Your task to perform on an android device: open sync settings in chrome Image 0: 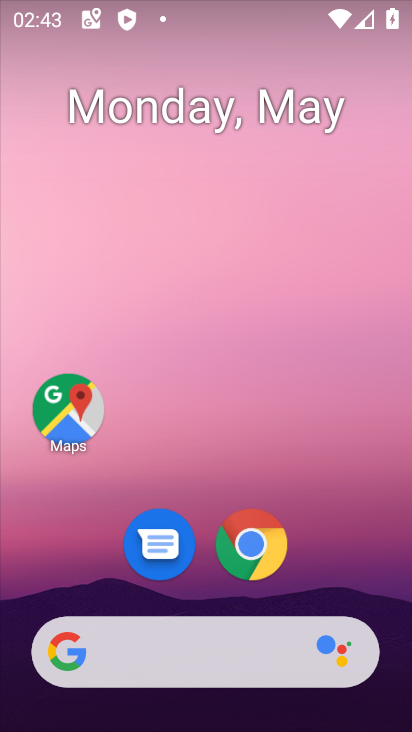
Step 0: drag from (389, 572) to (391, 284)
Your task to perform on an android device: open sync settings in chrome Image 1: 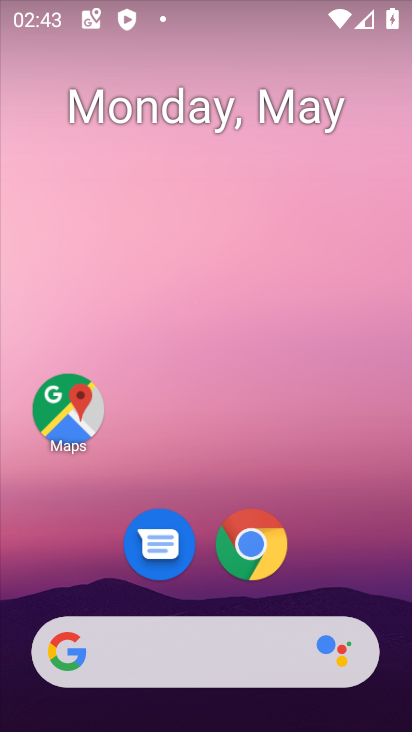
Step 1: drag from (386, 558) to (387, 214)
Your task to perform on an android device: open sync settings in chrome Image 2: 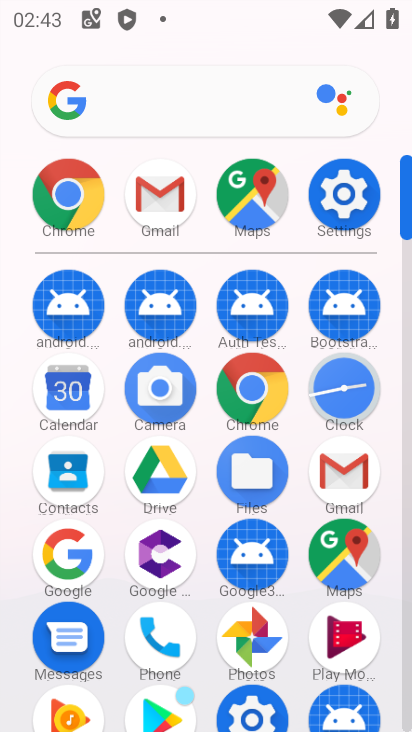
Step 2: click (259, 392)
Your task to perform on an android device: open sync settings in chrome Image 3: 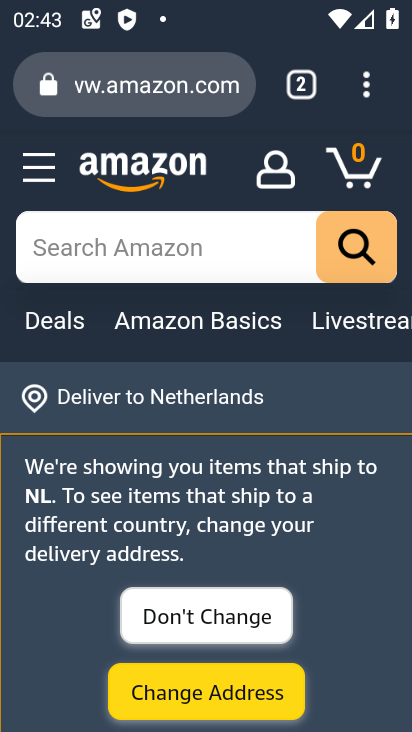
Step 3: click (363, 100)
Your task to perform on an android device: open sync settings in chrome Image 4: 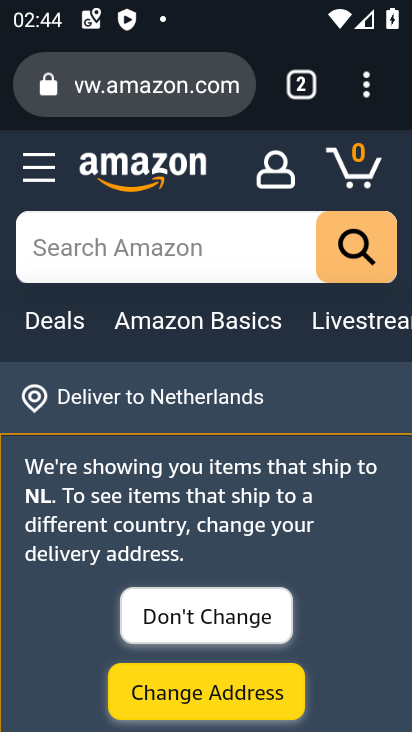
Step 4: click (366, 92)
Your task to perform on an android device: open sync settings in chrome Image 5: 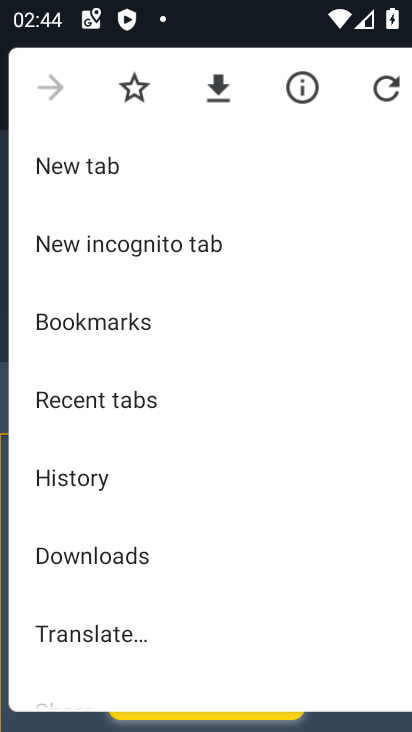
Step 5: drag from (328, 433) to (318, 343)
Your task to perform on an android device: open sync settings in chrome Image 6: 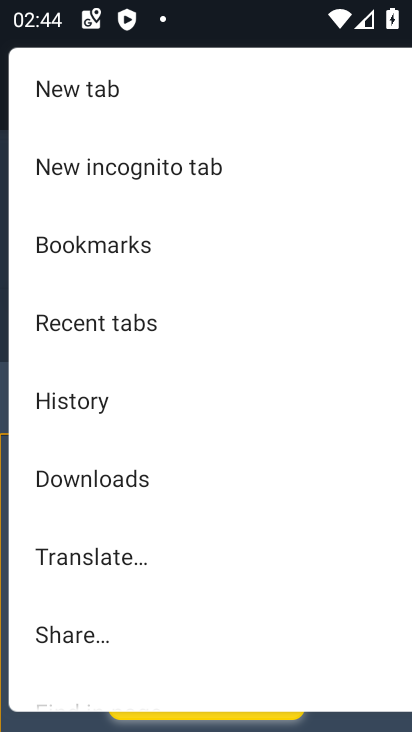
Step 6: drag from (305, 553) to (299, 400)
Your task to perform on an android device: open sync settings in chrome Image 7: 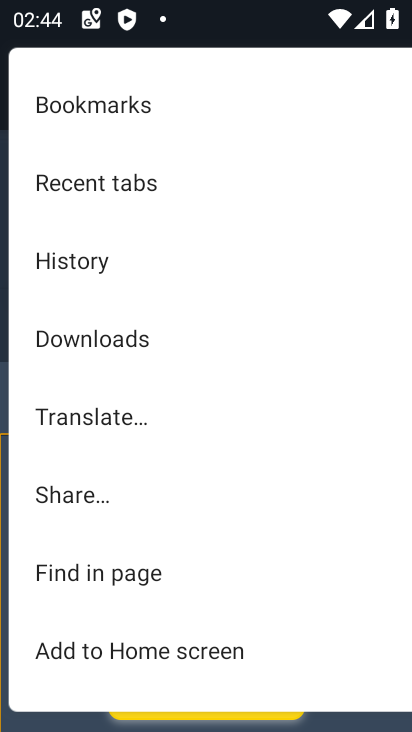
Step 7: drag from (279, 611) to (287, 454)
Your task to perform on an android device: open sync settings in chrome Image 8: 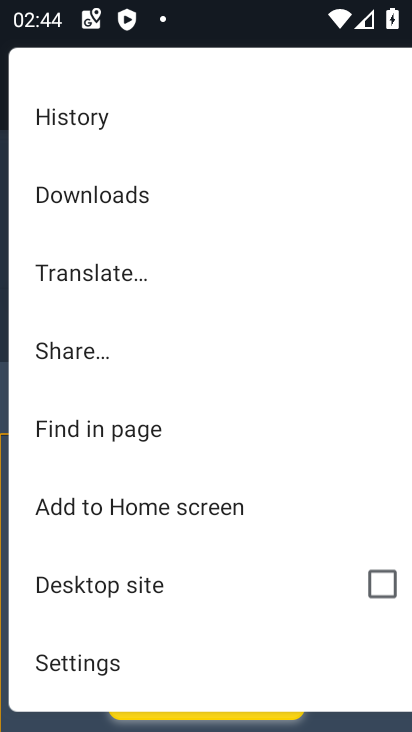
Step 8: drag from (302, 593) to (301, 462)
Your task to perform on an android device: open sync settings in chrome Image 9: 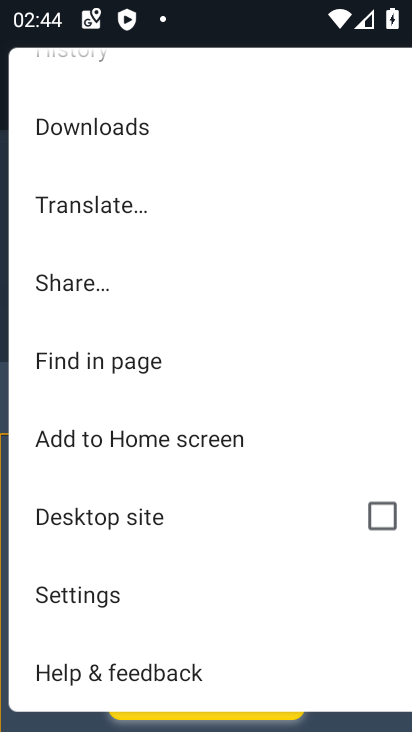
Step 9: click (159, 615)
Your task to perform on an android device: open sync settings in chrome Image 10: 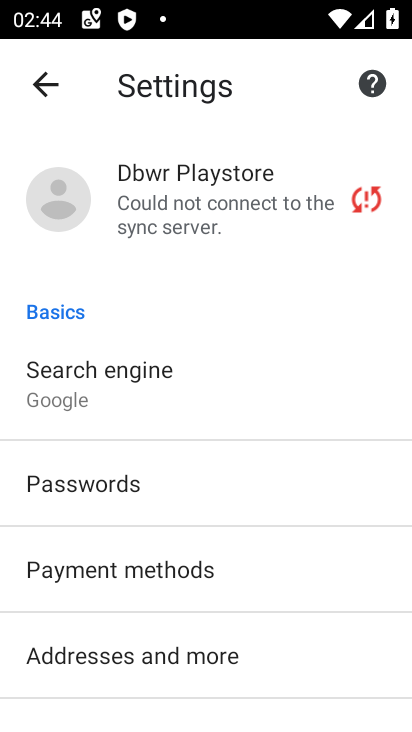
Step 10: drag from (279, 617) to (306, 490)
Your task to perform on an android device: open sync settings in chrome Image 11: 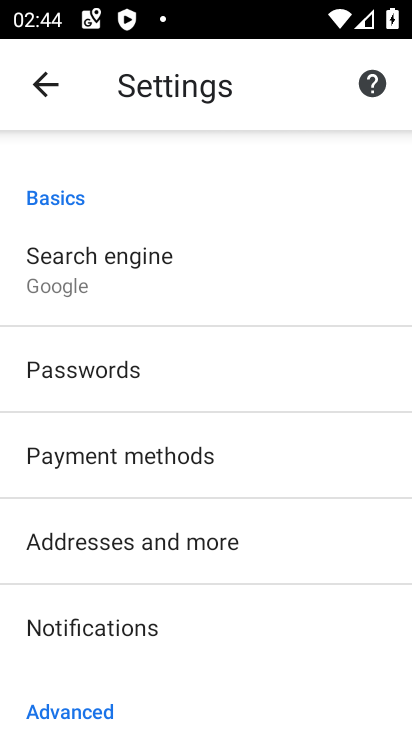
Step 11: drag from (296, 598) to (323, 501)
Your task to perform on an android device: open sync settings in chrome Image 12: 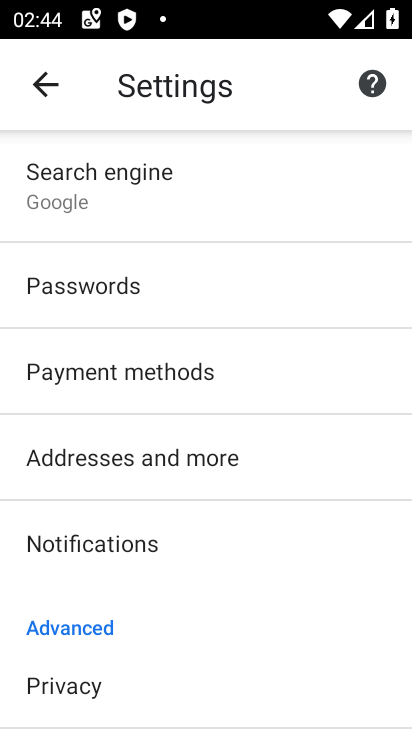
Step 12: drag from (320, 601) to (329, 496)
Your task to perform on an android device: open sync settings in chrome Image 13: 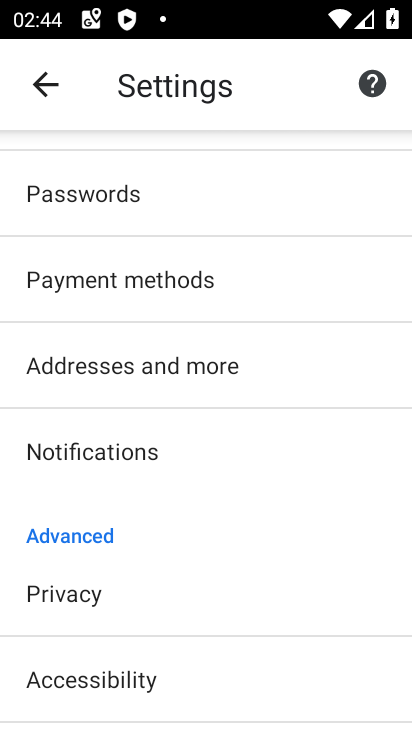
Step 13: drag from (292, 622) to (298, 465)
Your task to perform on an android device: open sync settings in chrome Image 14: 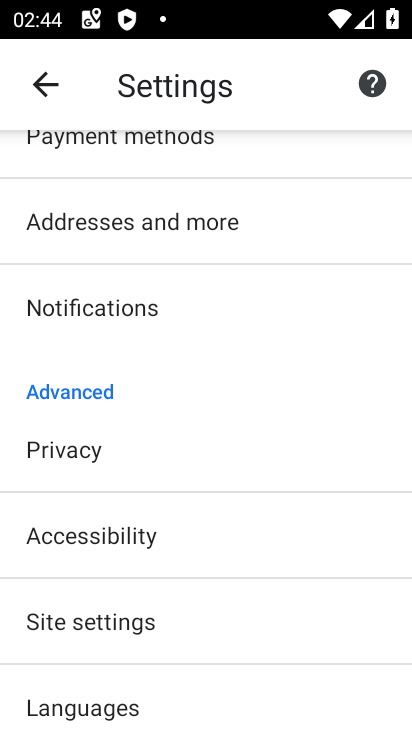
Step 14: drag from (274, 572) to (258, 454)
Your task to perform on an android device: open sync settings in chrome Image 15: 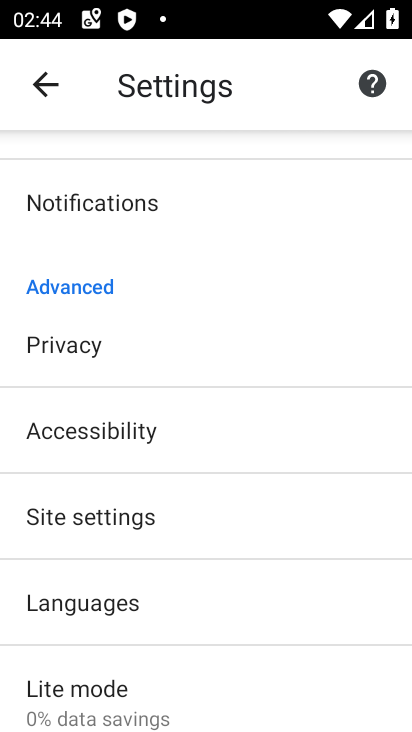
Step 15: click (249, 530)
Your task to perform on an android device: open sync settings in chrome Image 16: 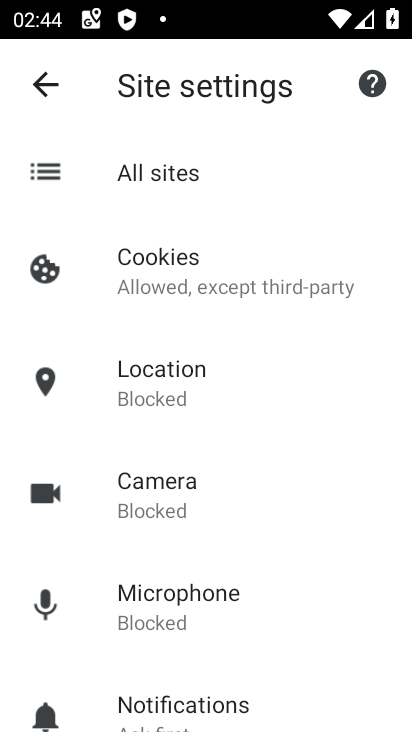
Step 16: drag from (309, 535) to (329, 440)
Your task to perform on an android device: open sync settings in chrome Image 17: 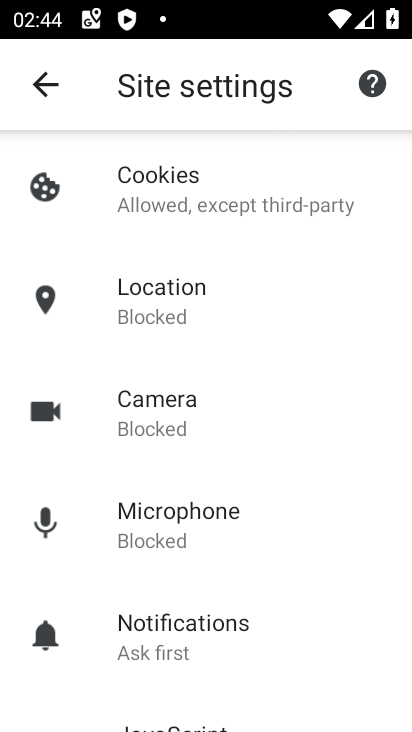
Step 17: drag from (345, 563) to (338, 450)
Your task to perform on an android device: open sync settings in chrome Image 18: 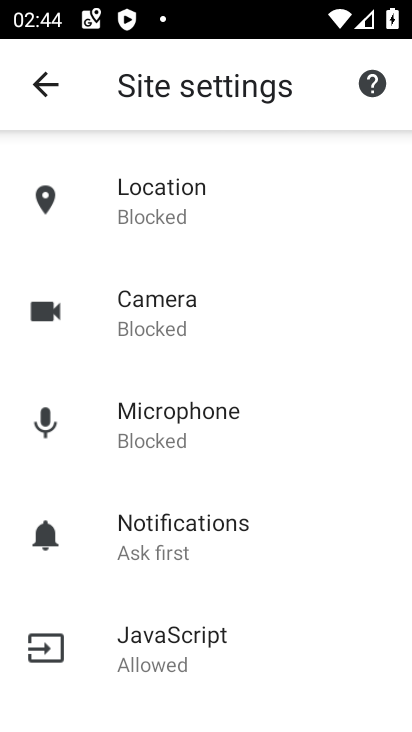
Step 18: drag from (317, 587) to (313, 497)
Your task to perform on an android device: open sync settings in chrome Image 19: 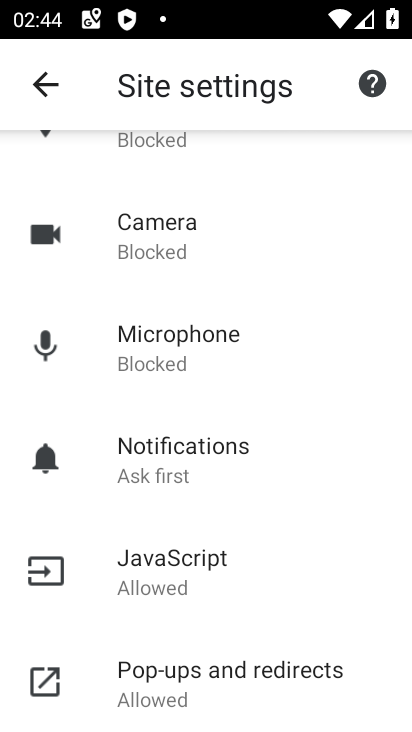
Step 19: drag from (327, 608) to (350, 504)
Your task to perform on an android device: open sync settings in chrome Image 20: 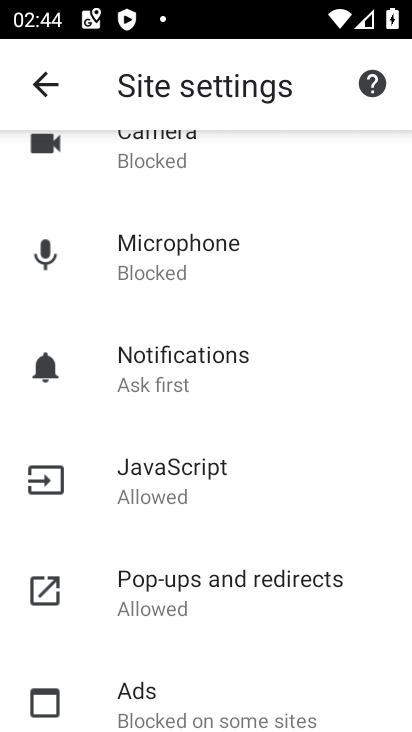
Step 20: drag from (346, 638) to (361, 528)
Your task to perform on an android device: open sync settings in chrome Image 21: 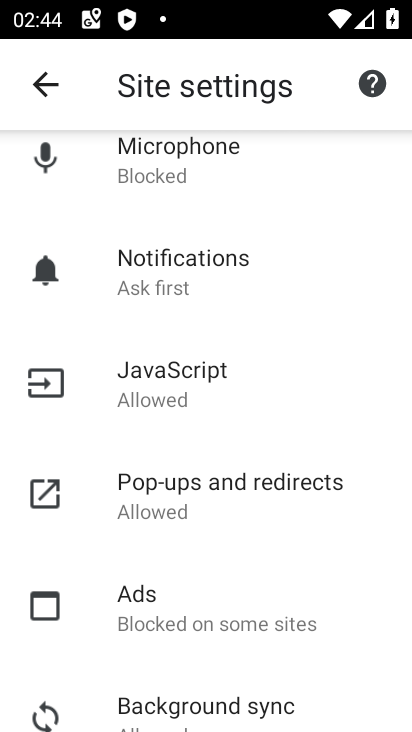
Step 21: drag from (364, 642) to (374, 545)
Your task to perform on an android device: open sync settings in chrome Image 22: 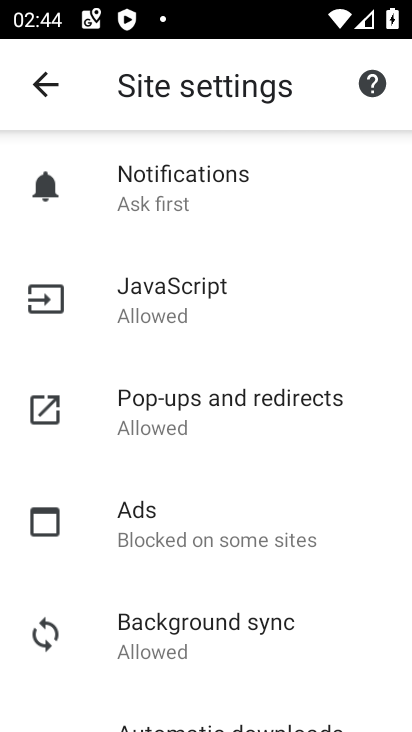
Step 22: drag from (353, 651) to (380, 527)
Your task to perform on an android device: open sync settings in chrome Image 23: 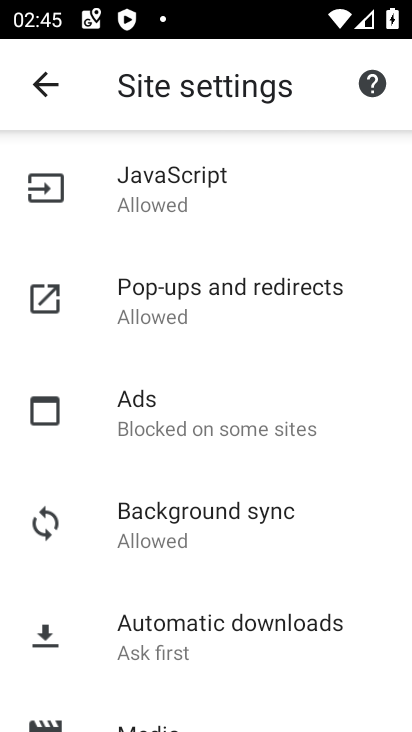
Step 23: click (318, 551)
Your task to perform on an android device: open sync settings in chrome Image 24: 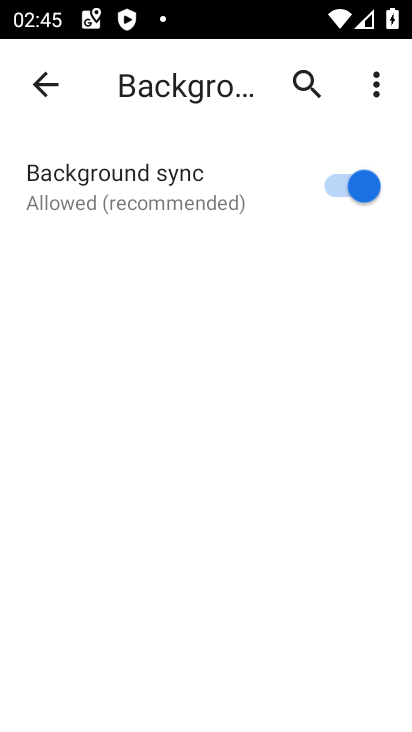
Step 24: task complete